Your task to perform on an android device: uninstall "YouTube Kids" Image 0: 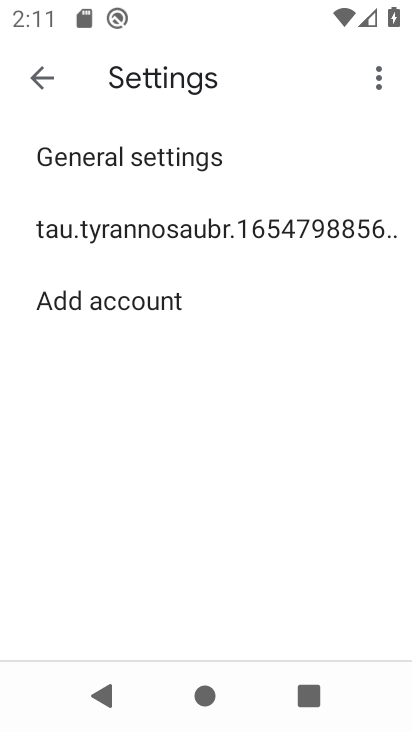
Step 0: press home button
Your task to perform on an android device: uninstall "YouTube Kids" Image 1: 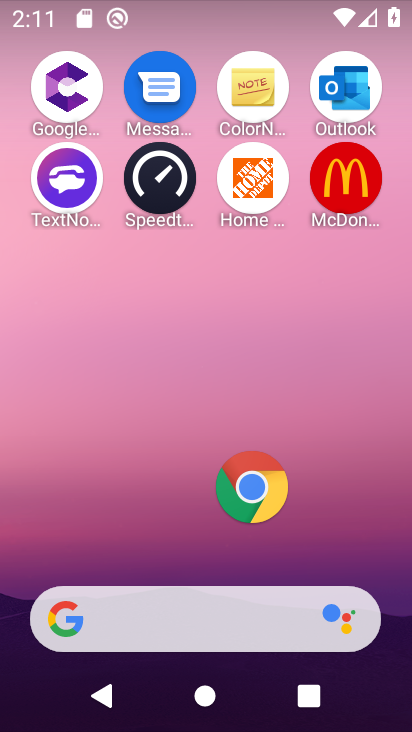
Step 1: drag from (156, 568) to (168, 159)
Your task to perform on an android device: uninstall "YouTube Kids" Image 2: 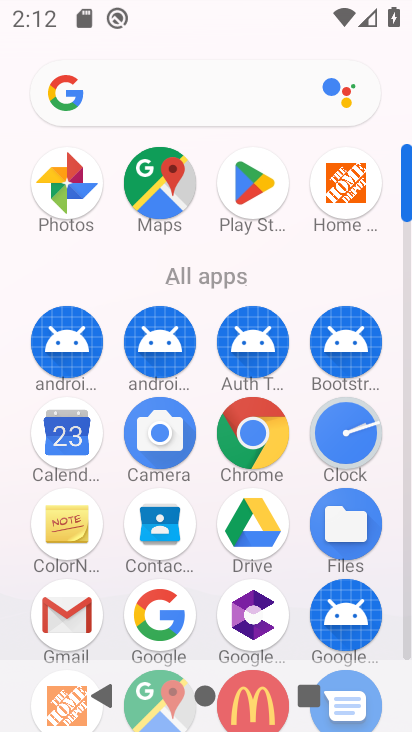
Step 2: click (245, 179)
Your task to perform on an android device: uninstall "YouTube Kids" Image 3: 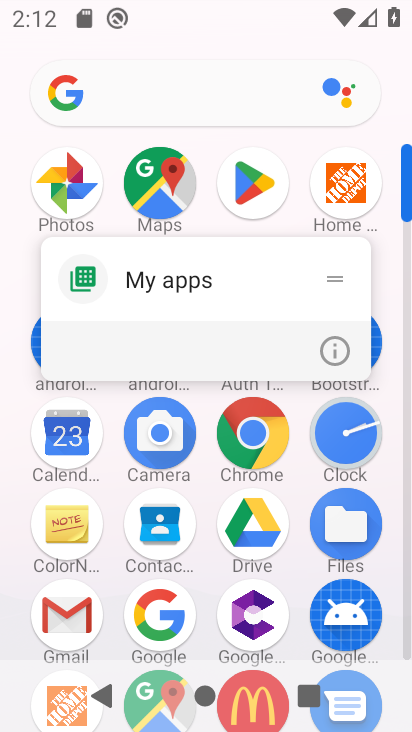
Step 3: click (248, 183)
Your task to perform on an android device: uninstall "YouTube Kids" Image 4: 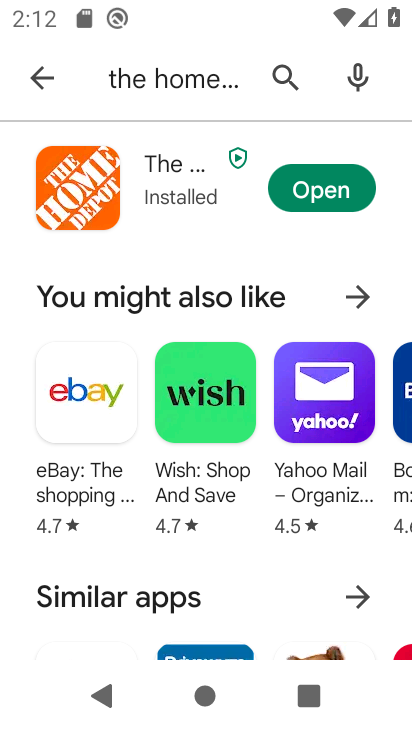
Step 4: click (20, 69)
Your task to perform on an android device: uninstall "YouTube Kids" Image 5: 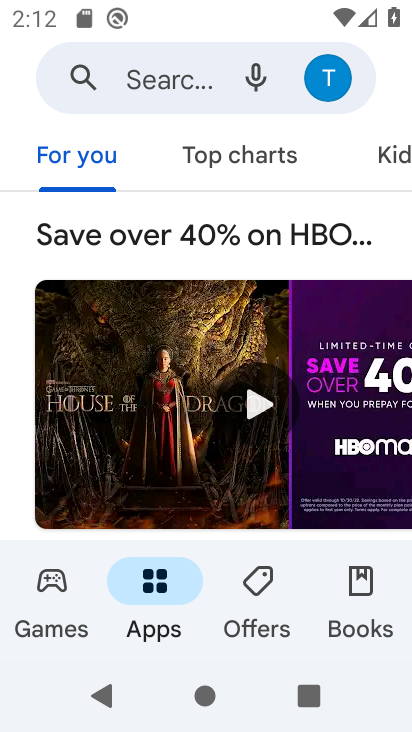
Step 5: click (149, 76)
Your task to perform on an android device: uninstall "YouTube Kids" Image 6: 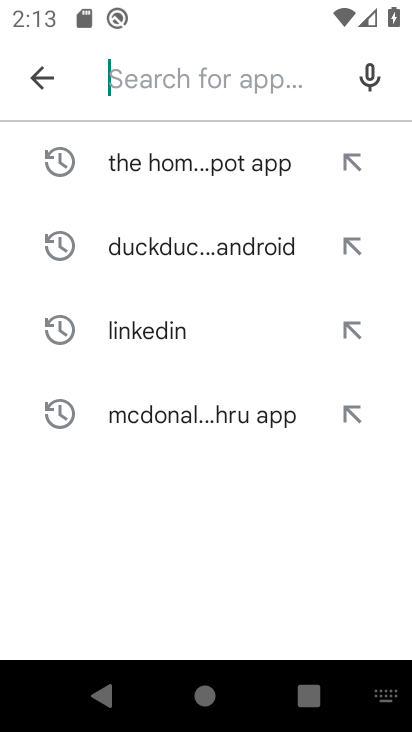
Step 6: type "YouTube Kids "
Your task to perform on an android device: uninstall "YouTube Kids" Image 7: 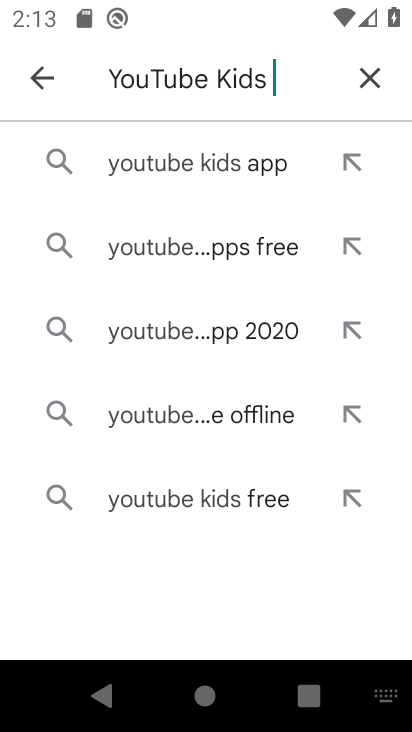
Step 7: click (193, 161)
Your task to perform on an android device: uninstall "YouTube Kids" Image 8: 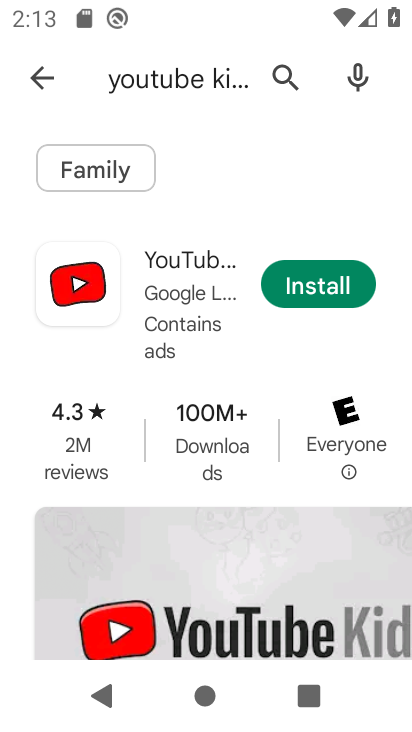
Step 8: click (162, 276)
Your task to perform on an android device: uninstall "YouTube Kids" Image 9: 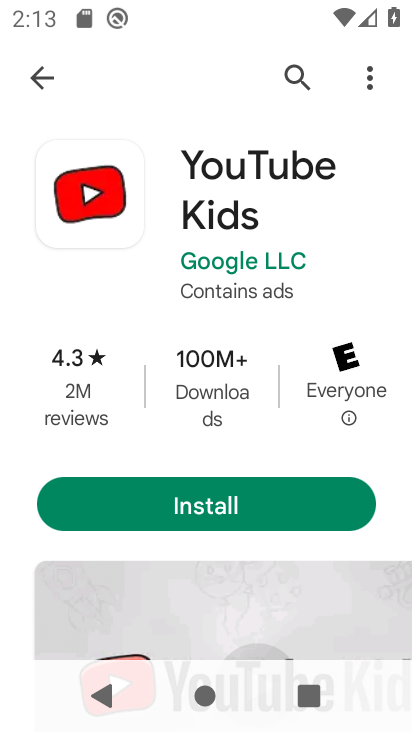
Step 9: task complete